Your task to perform on an android device: Clear the cart on walmart. Add "jbl flip 4" to the cart on walmart, then select checkout. Image 0: 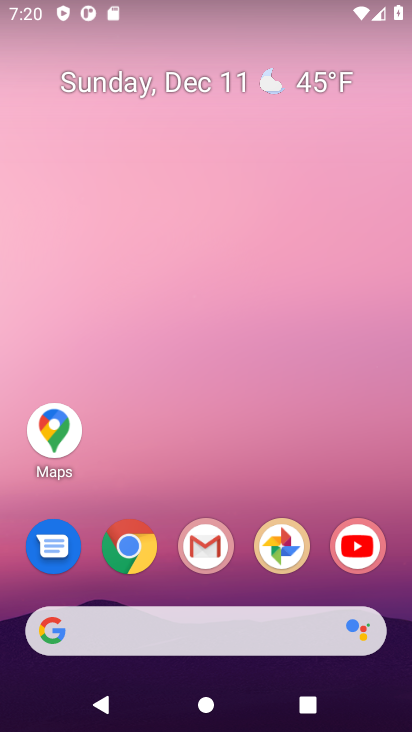
Step 0: click (135, 561)
Your task to perform on an android device: Clear the cart on walmart. Add "jbl flip 4" to the cart on walmart, then select checkout. Image 1: 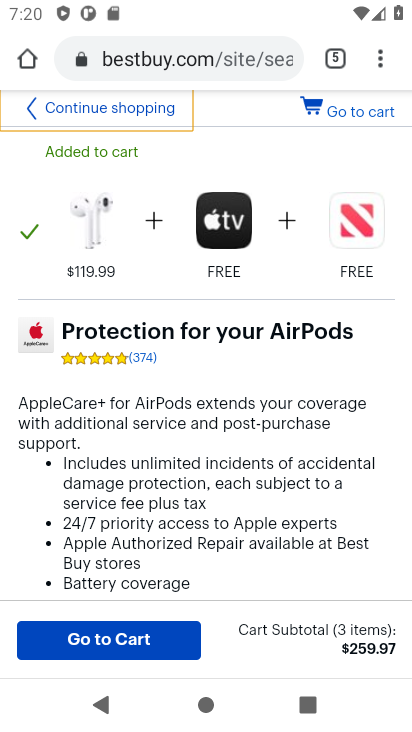
Step 1: click (176, 55)
Your task to perform on an android device: Clear the cart on walmart. Add "jbl flip 4" to the cart on walmart, then select checkout. Image 2: 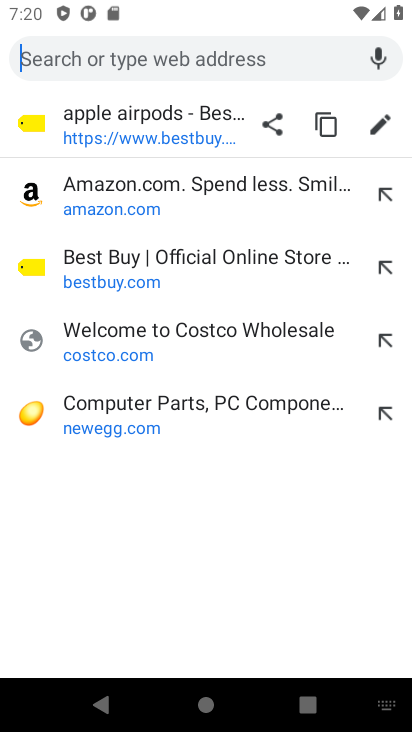
Step 2: type "walmart.com"
Your task to perform on an android device: Clear the cart on walmart. Add "jbl flip 4" to the cart on walmart, then select checkout. Image 3: 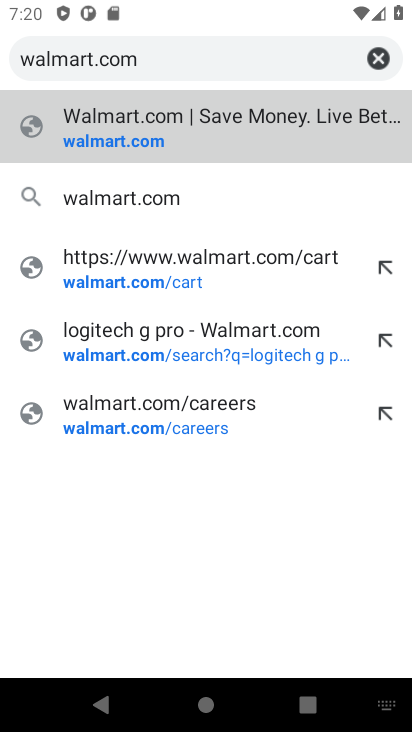
Step 3: click (143, 145)
Your task to perform on an android device: Clear the cart on walmart. Add "jbl flip 4" to the cart on walmart, then select checkout. Image 4: 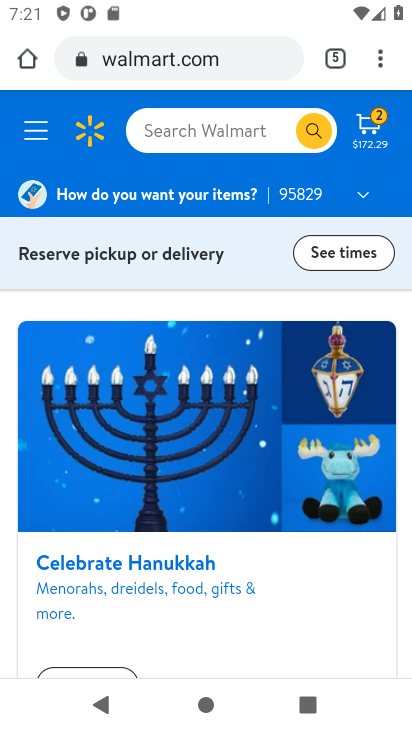
Step 4: click (370, 139)
Your task to perform on an android device: Clear the cart on walmart. Add "jbl flip 4" to the cart on walmart, then select checkout. Image 5: 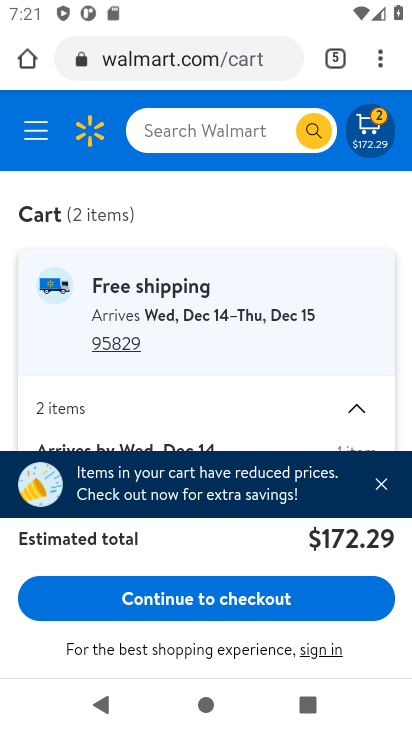
Step 5: drag from (238, 368) to (240, 120)
Your task to perform on an android device: Clear the cart on walmart. Add "jbl flip 4" to the cart on walmart, then select checkout. Image 6: 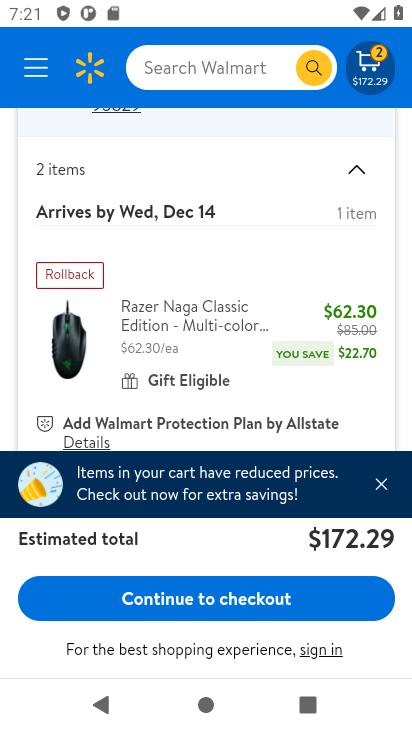
Step 6: drag from (230, 382) to (243, 193)
Your task to perform on an android device: Clear the cart on walmart. Add "jbl flip 4" to the cart on walmart, then select checkout. Image 7: 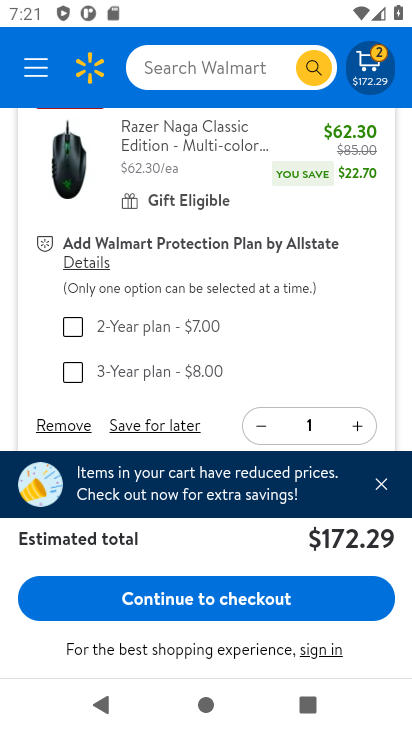
Step 7: drag from (209, 377) to (221, 244)
Your task to perform on an android device: Clear the cart on walmart. Add "jbl flip 4" to the cart on walmart, then select checkout. Image 8: 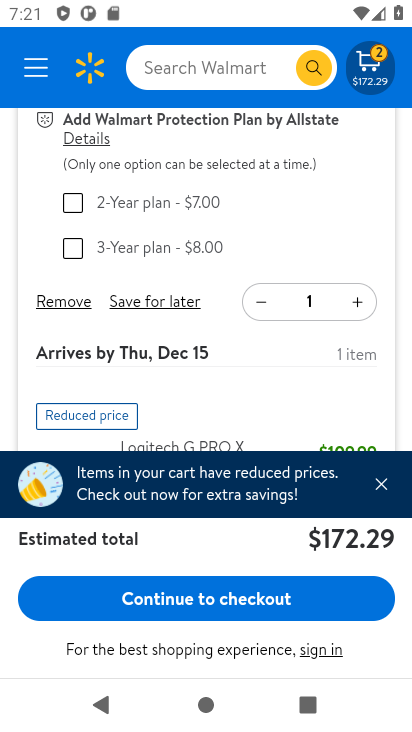
Step 8: click (65, 302)
Your task to perform on an android device: Clear the cart on walmart. Add "jbl flip 4" to the cart on walmart, then select checkout. Image 9: 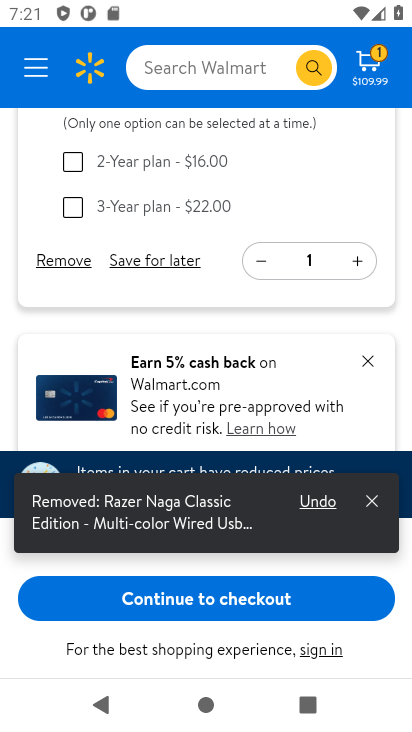
Step 9: click (58, 263)
Your task to perform on an android device: Clear the cart on walmart. Add "jbl flip 4" to the cart on walmart, then select checkout. Image 10: 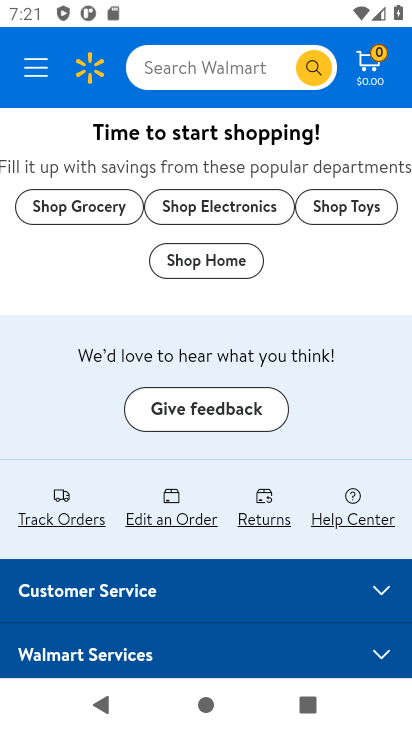
Step 10: drag from (339, 359) to (353, 456)
Your task to perform on an android device: Clear the cart on walmart. Add "jbl flip 4" to the cart on walmart, then select checkout. Image 11: 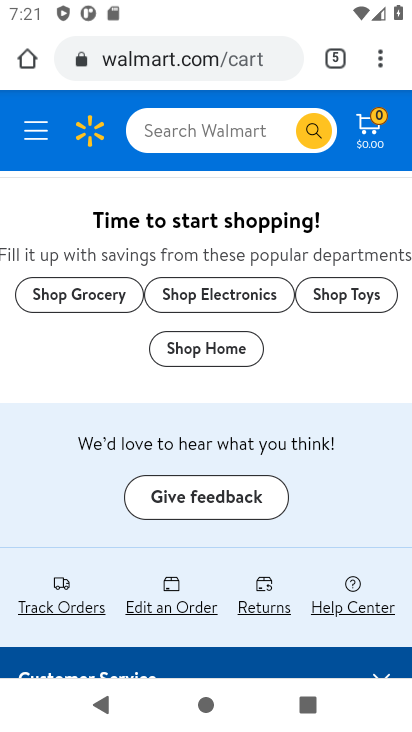
Step 11: click (191, 140)
Your task to perform on an android device: Clear the cart on walmart. Add "jbl flip 4" to the cart on walmart, then select checkout. Image 12: 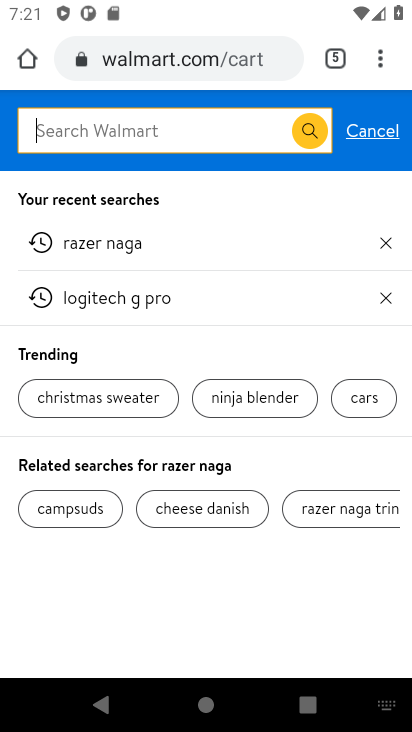
Step 12: type "jbl flip 4"
Your task to perform on an android device: Clear the cart on walmart. Add "jbl flip 4" to the cart on walmart, then select checkout. Image 13: 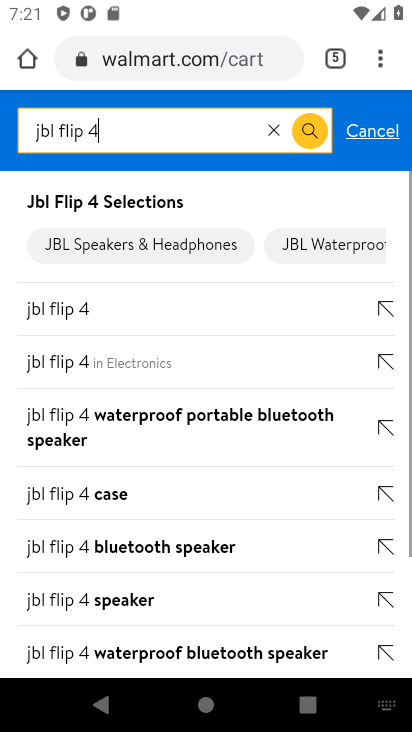
Step 13: click (42, 316)
Your task to perform on an android device: Clear the cart on walmart. Add "jbl flip 4" to the cart on walmart, then select checkout. Image 14: 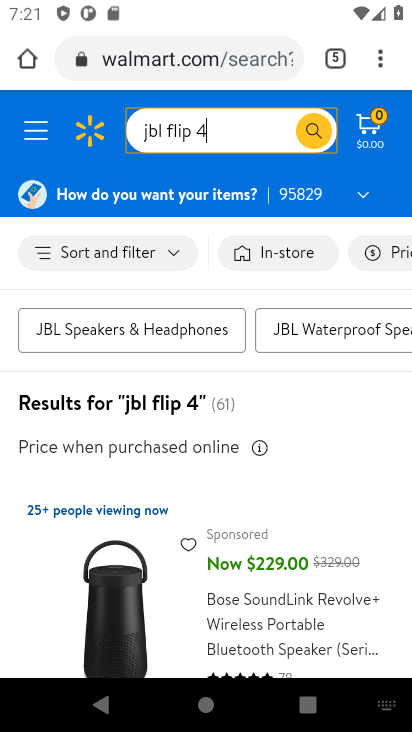
Step 14: drag from (159, 520) to (183, 277)
Your task to perform on an android device: Clear the cart on walmart. Add "jbl flip 4" to the cart on walmart, then select checkout. Image 15: 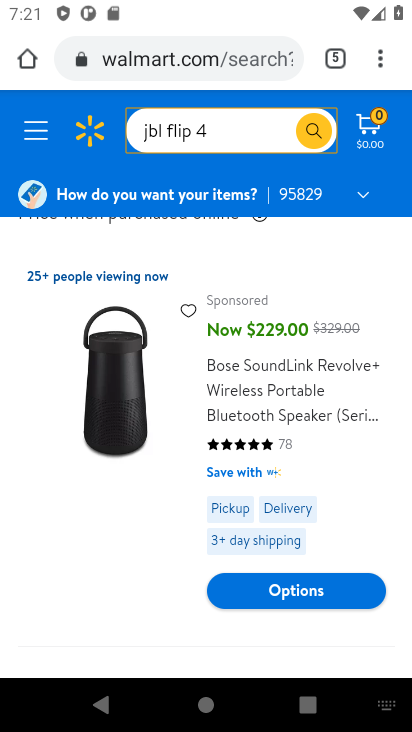
Step 15: drag from (158, 512) to (184, 283)
Your task to perform on an android device: Clear the cart on walmart. Add "jbl flip 4" to the cart on walmart, then select checkout. Image 16: 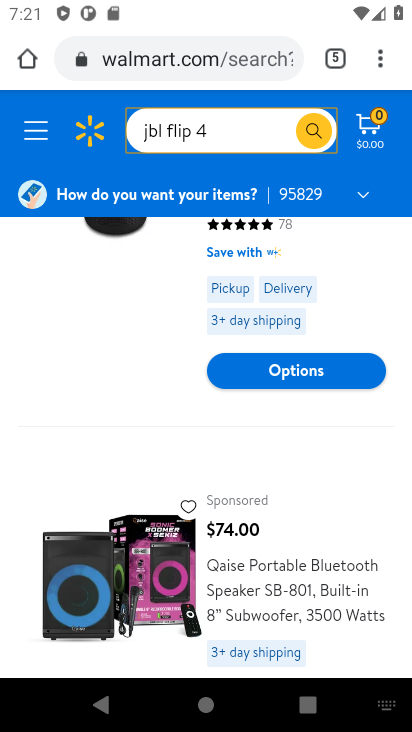
Step 16: drag from (142, 581) to (145, 282)
Your task to perform on an android device: Clear the cart on walmart. Add "jbl flip 4" to the cart on walmart, then select checkout. Image 17: 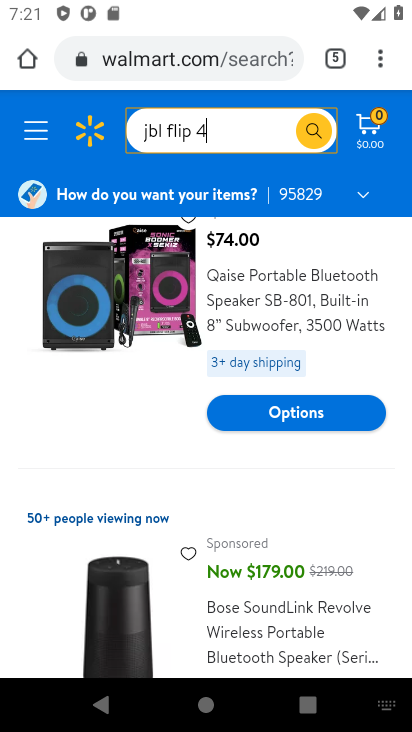
Step 17: drag from (100, 567) to (111, 279)
Your task to perform on an android device: Clear the cart on walmart. Add "jbl flip 4" to the cart on walmart, then select checkout. Image 18: 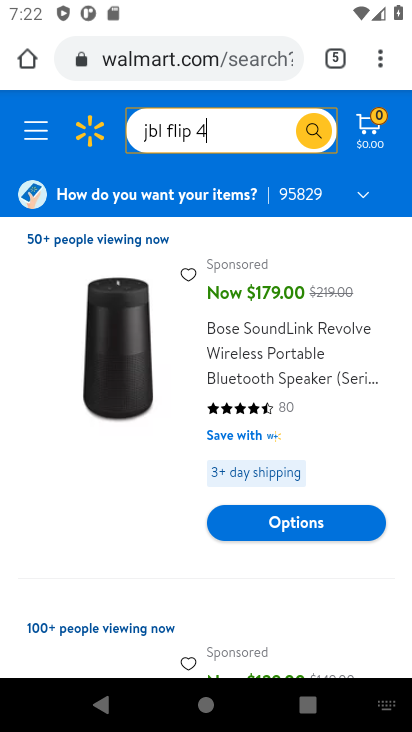
Step 18: drag from (128, 536) to (139, 231)
Your task to perform on an android device: Clear the cart on walmart. Add "jbl flip 4" to the cart on walmart, then select checkout. Image 19: 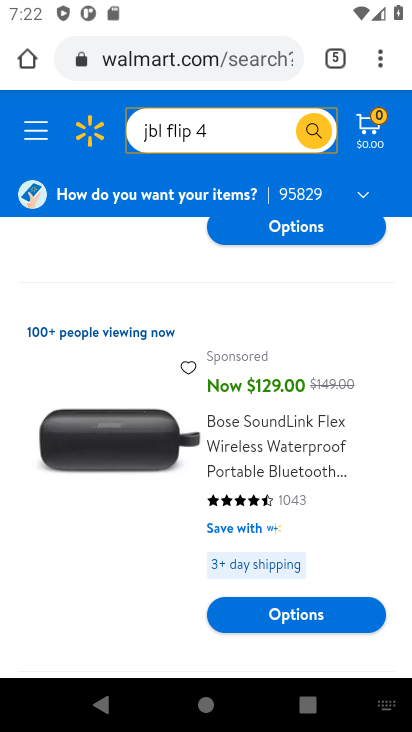
Step 19: drag from (125, 517) to (113, 199)
Your task to perform on an android device: Clear the cart on walmart. Add "jbl flip 4" to the cart on walmart, then select checkout. Image 20: 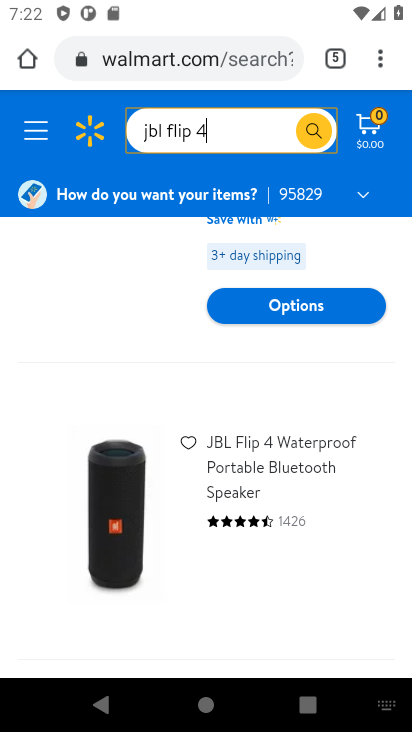
Step 20: drag from (150, 569) to (161, 310)
Your task to perform on an android device: Clear the cart on walmart. Add "jbl flip 4" to the cart on walmart, then select checkout. Image 21: 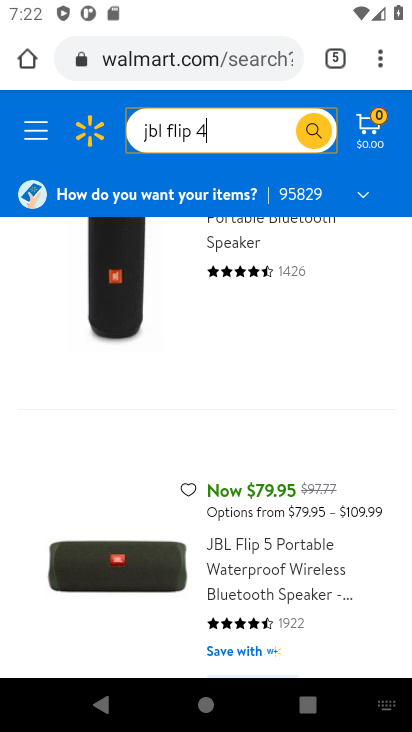
Step 21: click (158, 311)
Your task to perform on an android device: Clear the cart on walmart. Add "jbl flip 4" to the cart on walmart, then select checkout. Image 22: 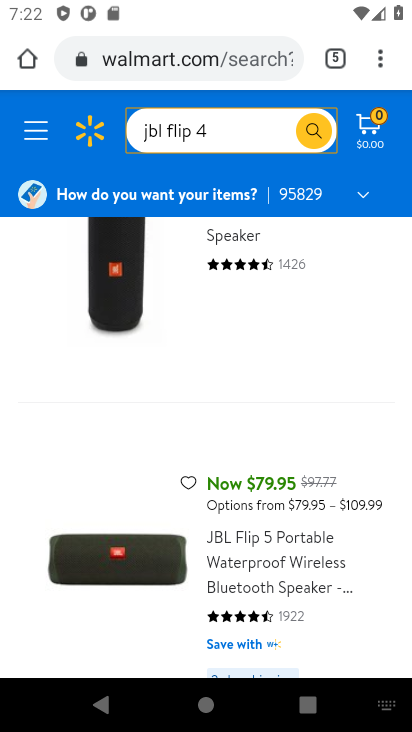
Step 22: drag from (148, 313) to (153, 488)
Your task to perform on an android device: Clear the cart on walmart. Add "jbl flip 4" to the cart on walmart, then select checkout. Image 23: 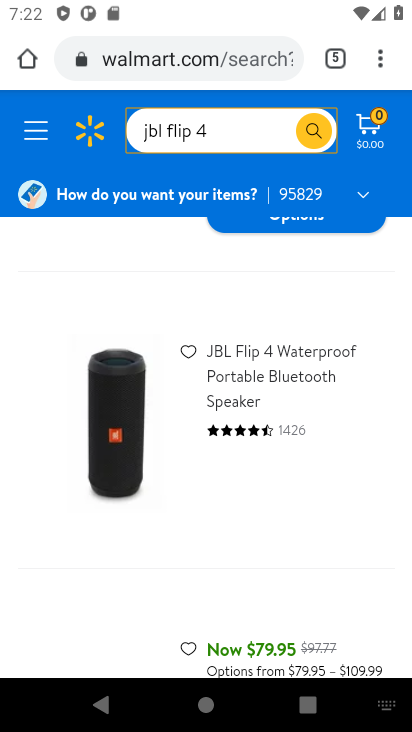
Step 23: click (260, 377)
Your task to perform on an android device: Clear the cart on walmart. Add "jbl flip 4" to the cart on walmart, then select checkout. Image 24: 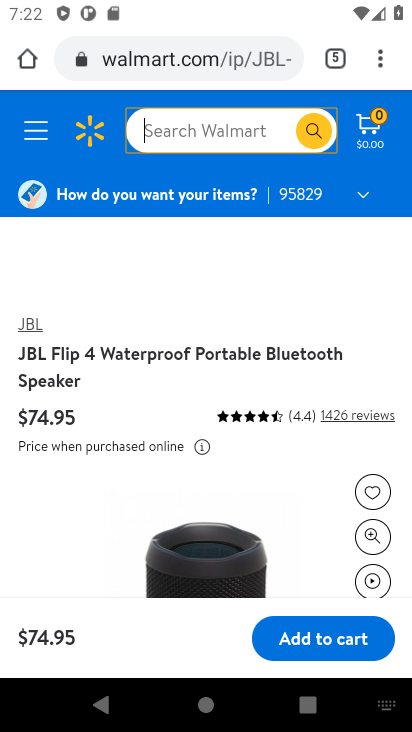
Step 24: click (314, 637)
Your task to perform on an android device: Clear the cart on walmart. Add "jbl flip 4" to the cart on walmart, then select checkout. Image 25: 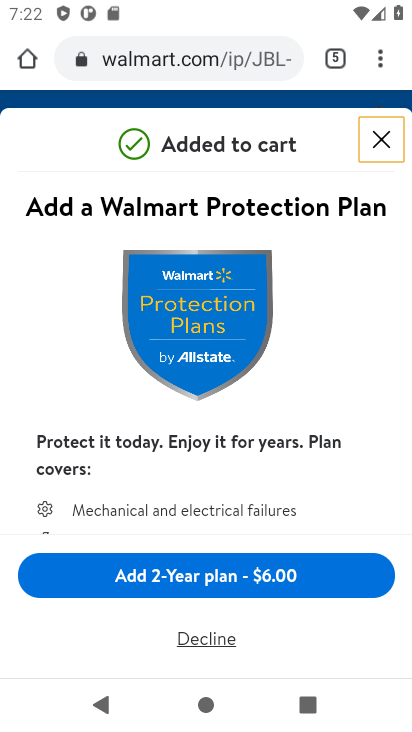
Step 25: click (383, 133)
Your task to perform on an android device: Clear the cart on walmart. Add "jbl flip 4" to the cart on walmart, then select checkout. Image 26: 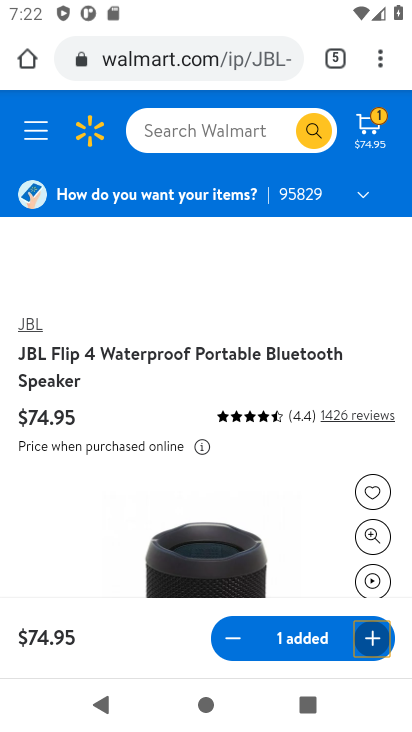
Step 26: click (369, 136)
Your task to perform on an android device: Clear the cart on walmart. Add "jbl flip 4" to the cart on walmart, then select checkout. Image 27: 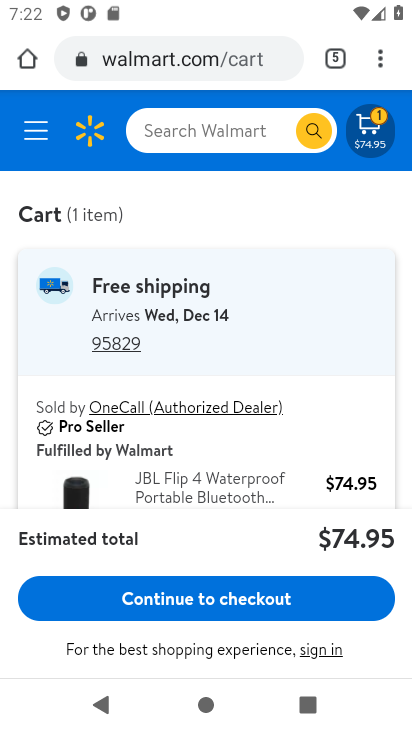
Step 27: click (220, 602)
Your task to perform on an android device: Clear the cart on walmart. Add "jbl flip 4" to the cart on walmart, then select checkout. Image 28: 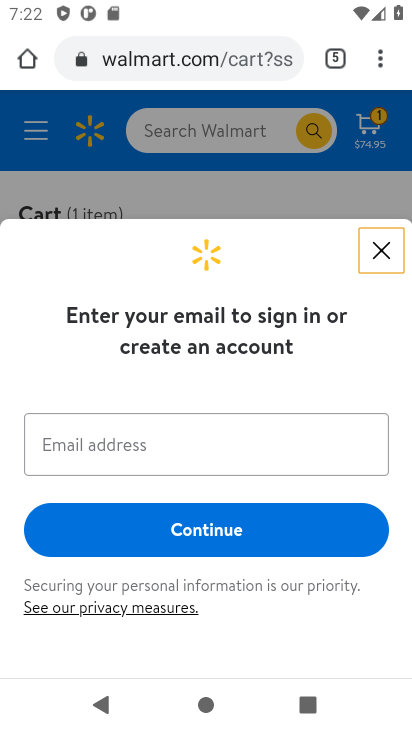
Step 28: task complete